Your task to perform on an android device: Go to location settings Image 0: 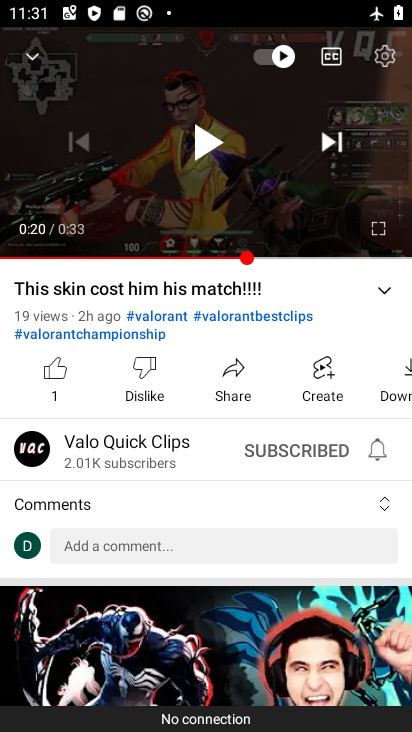
Step 0: press home button
Your task to perform on an android device: Go to location settings Image 1: 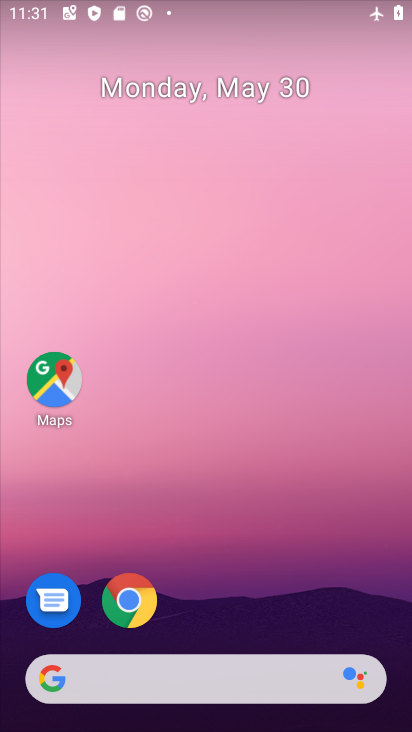
Step 1: drag from (209, 729) to (212, 114)
Your task to perform on an android device: Go to location settings Image 2: 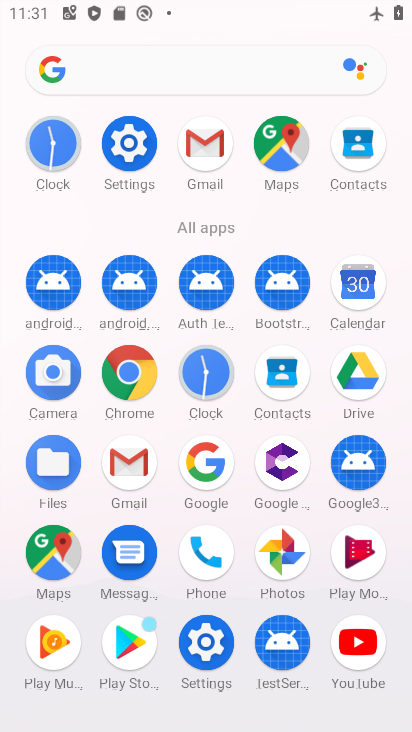
Step 2: click (130, 142)
Your task to perform on an android device: Go to location settings Image 3: 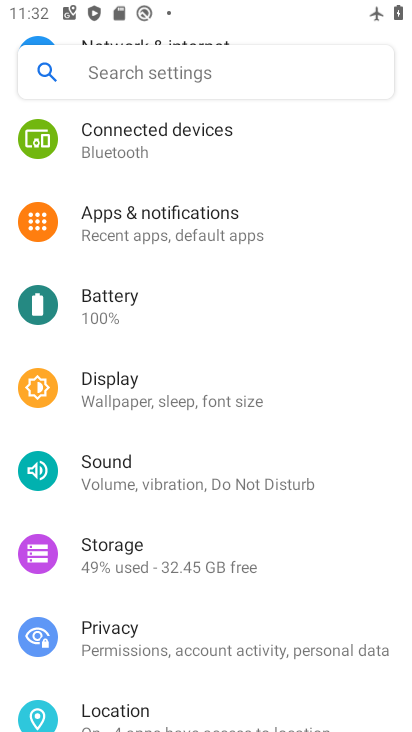
Step 3: click (105, 702)
Your task to perform on an android device: Go to location settings Image 4: 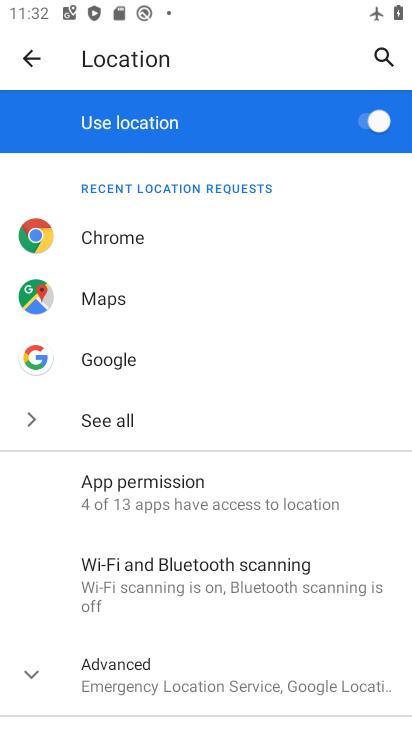
Step 4: task complete